Your task to perform on an android device: delete browsing data in the chrome app Image 0: 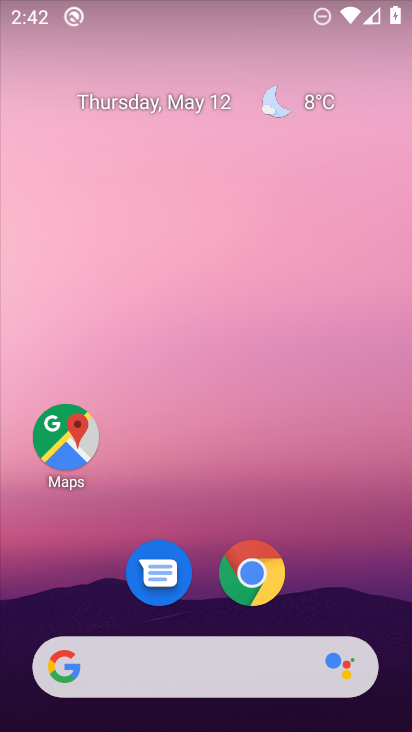
Step 0: drag from (352, 574) to (178, 44)
Your task to perform on an android device: delete browsing data in the chrome app Image 1: 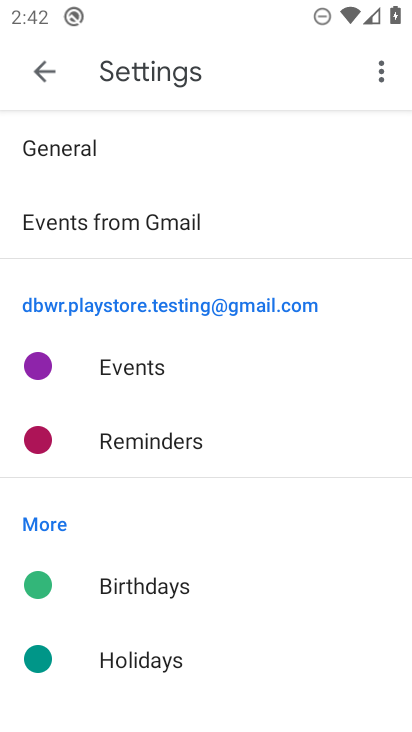
Step 1: click (36, 62)
Your task to perform on an android device: delete browsing data in the chrome app Image 2: 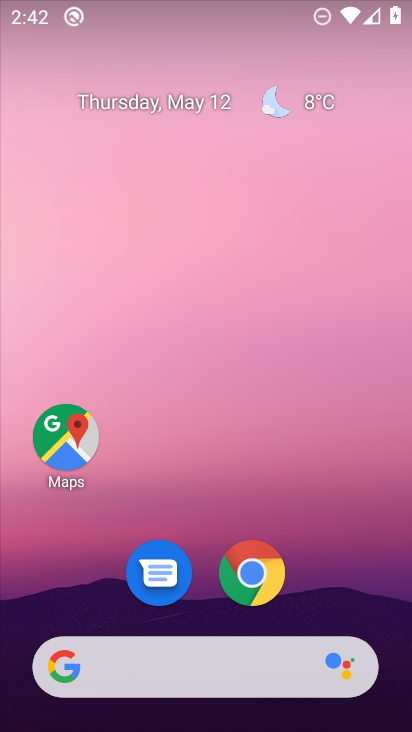
Step 2: drag from (362, 604) to (162, 86)
Your task to perform on an android device: delete browsing data in the chrome app Image 3: 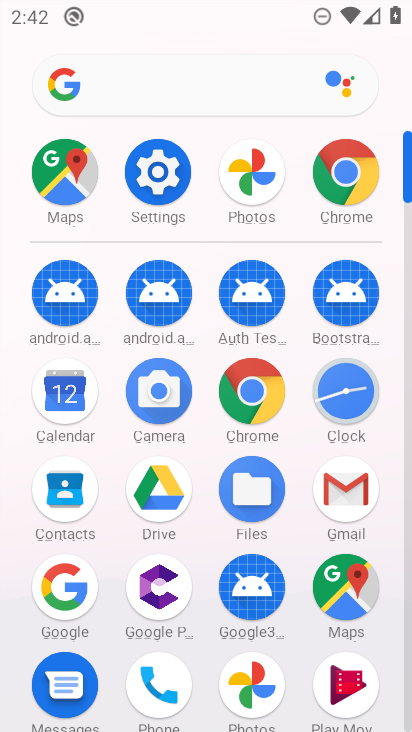
Step 3: click (353, 175)
Your task to perform on an android device: delete browsing data in the chrome app Image 4: 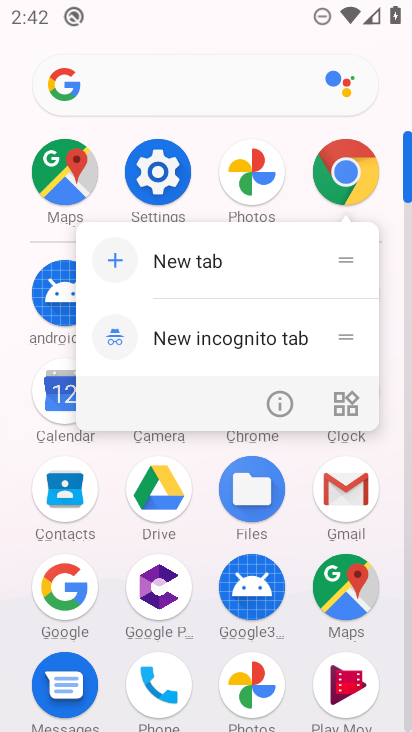
Step 4: click (353, 176)
Your task to perform on an android device: delete browsing data in the chrome app Image 5: 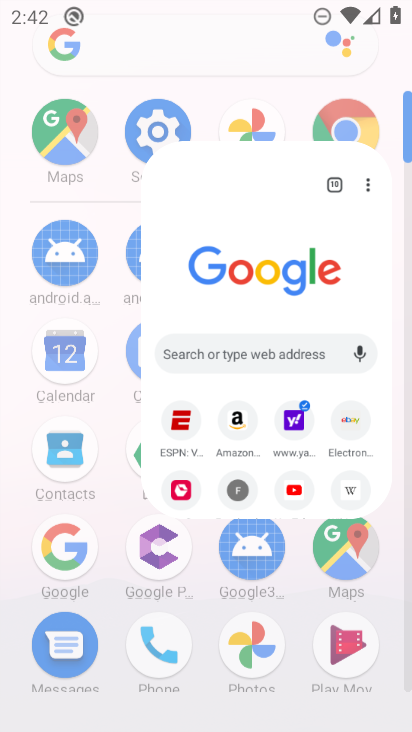
Step 5: click (353, 176)
Your task to perform on an android device: delete browsing data in the chrome app Image 6: 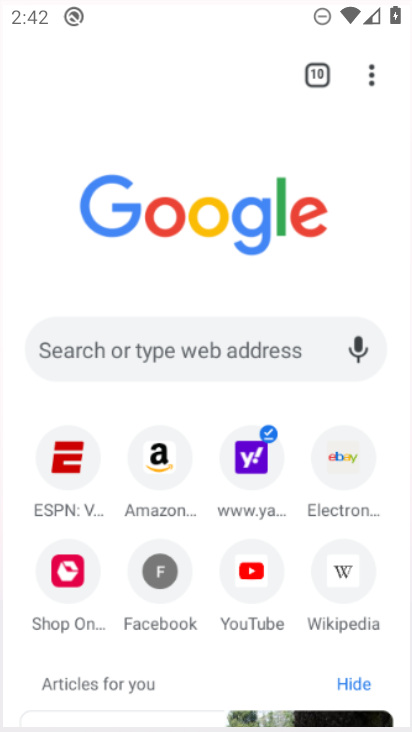
Step 6: click (353, 176)
Your task to perform on an android device: delete browsing data in the chrome app Image 7: 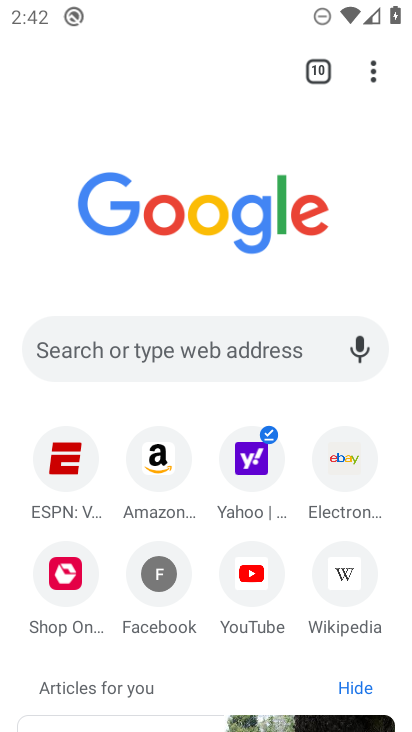
Step 7: click (375, 62)
Your task to perform on an android device: delete browsing data in the chrome app Image 8: 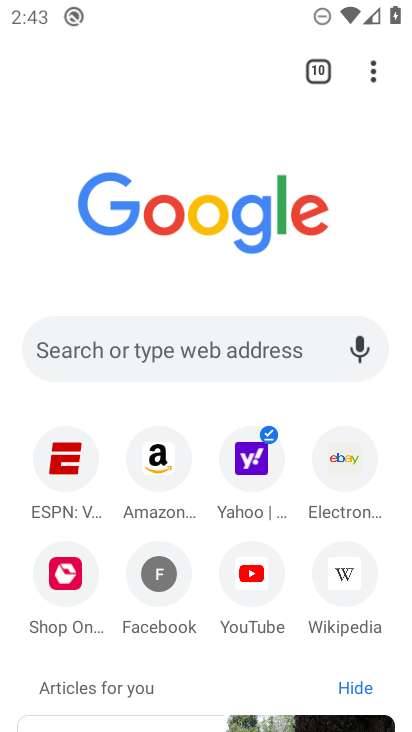
Step 8: drag from (374, 73) to (106, 414)
Your task to perform on an android device: delete browsing data in the chrome app Image 9: 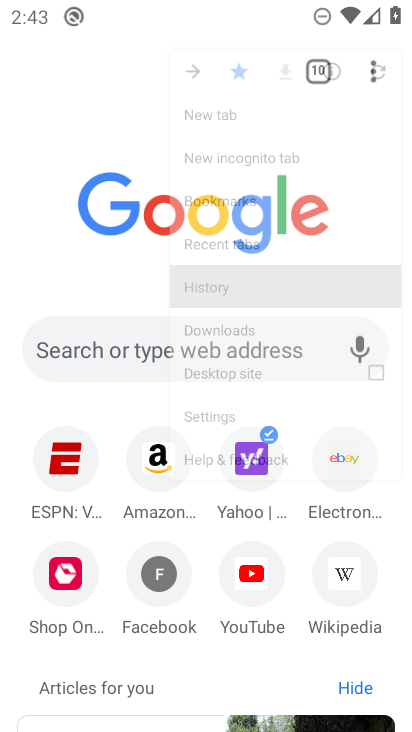
Step 9: click (105, 411)
Your task to perform on an android device: delete browsing data in the chrome app Image 10: 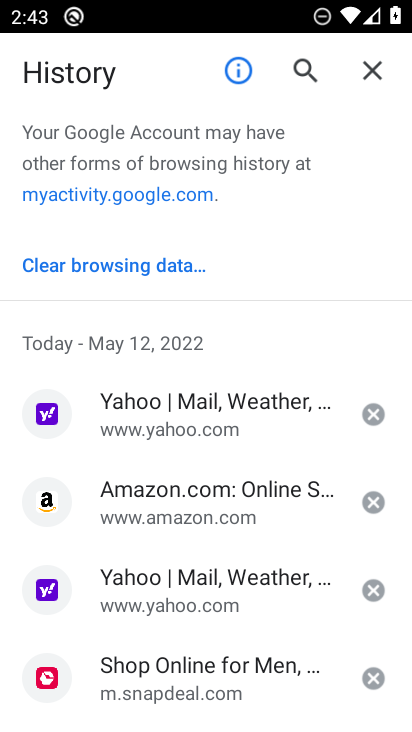
Step 10: drag from (208, 478) to (156, 25)
Your task to perform on an android device: delete browsing data in the chrome app Image 11: 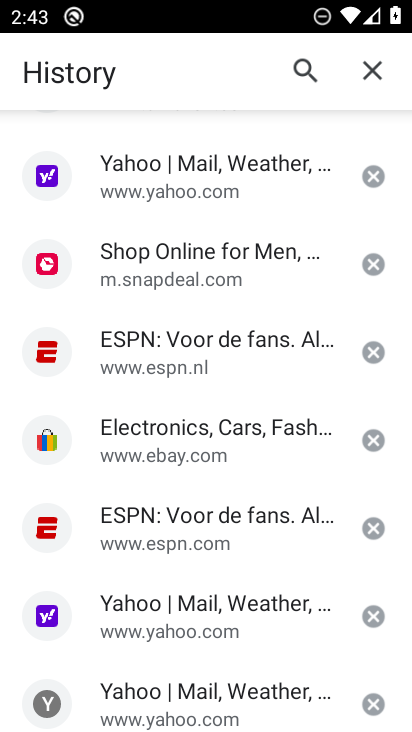
Step 11: drag from (185, 215) to (248, 586)
Your task to perform on an android device: delete browsing data in the chrome app Image 12: 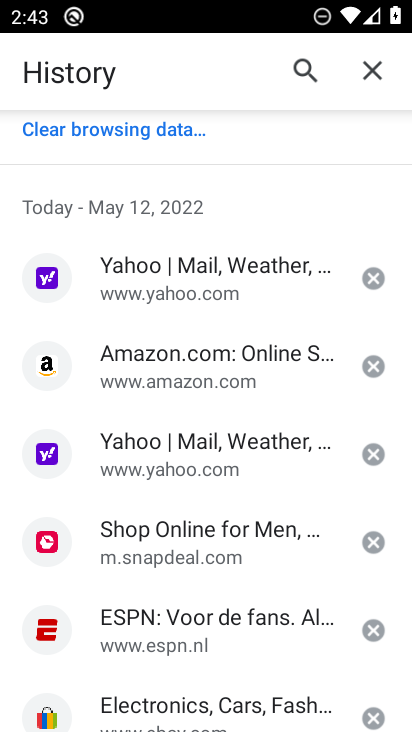
Step 12: click (366, 279)
Your task to perform on an android device: delete browsing data in the chrome app Image 13: 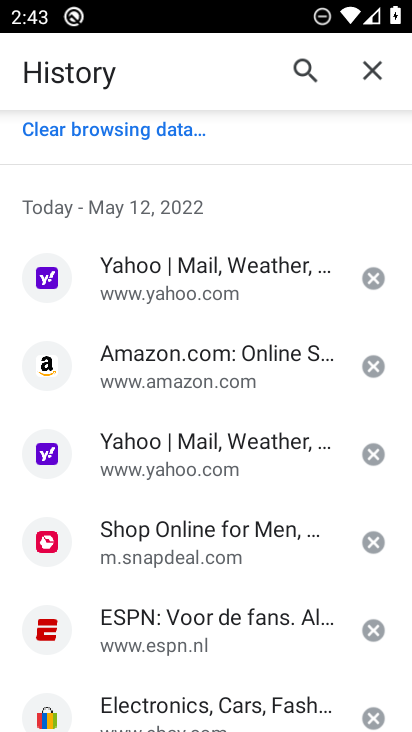
Step 13: click (368, 280)
Your task to perform on an android device: delete browsing data in the chrome app Image 14: 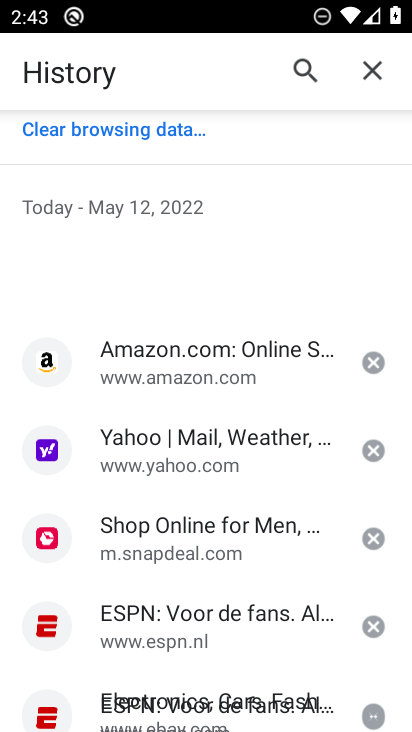
Step 14: click (369, 280)
Your task to perform on an android device: delete browsing data in the chrome app Image 15: 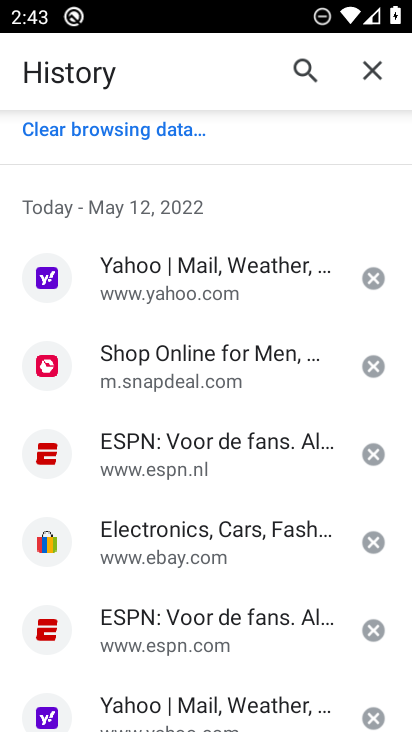
Step 15: task complete